Your task to perform on an android device: Go to network settings Image 0: 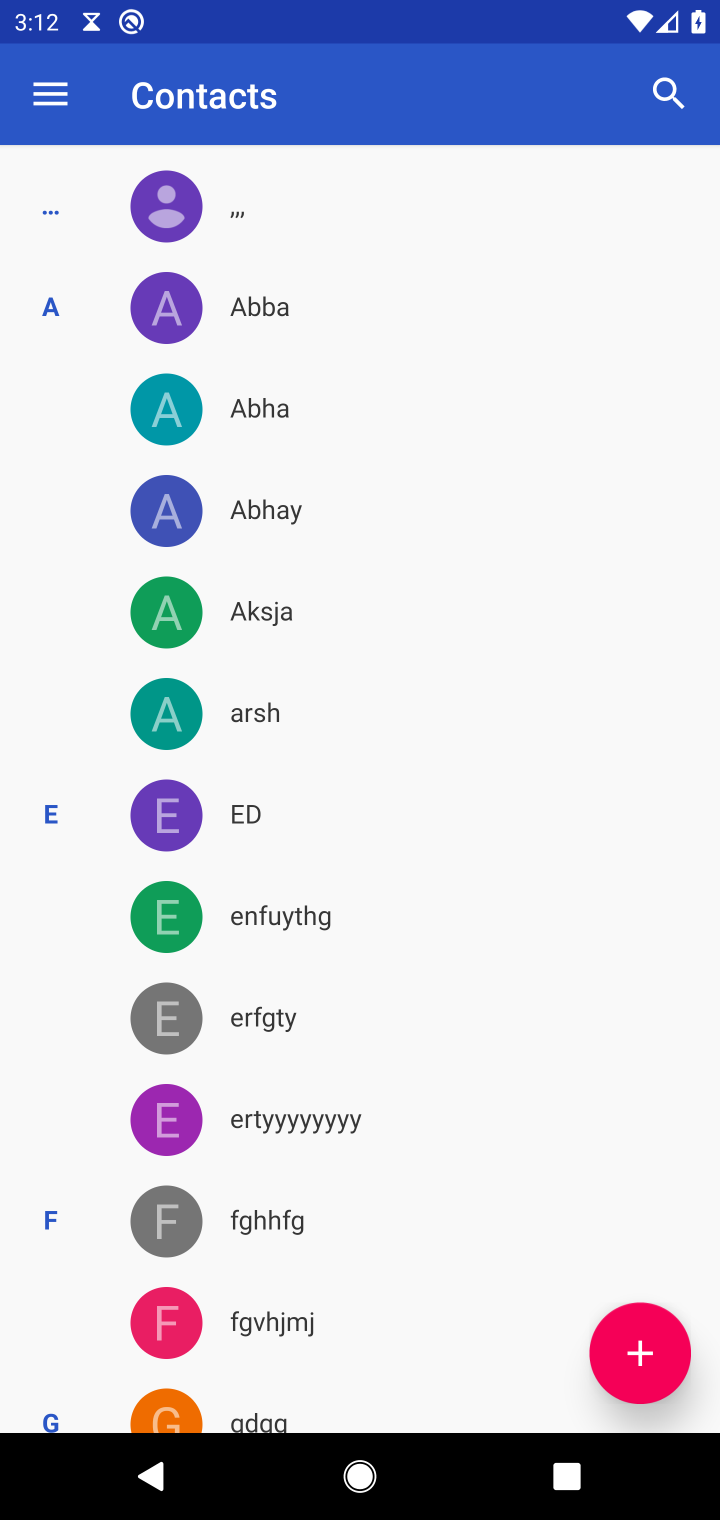
Step 0: press home button
Your task to perform on an android device: Go to network settings Image 1: 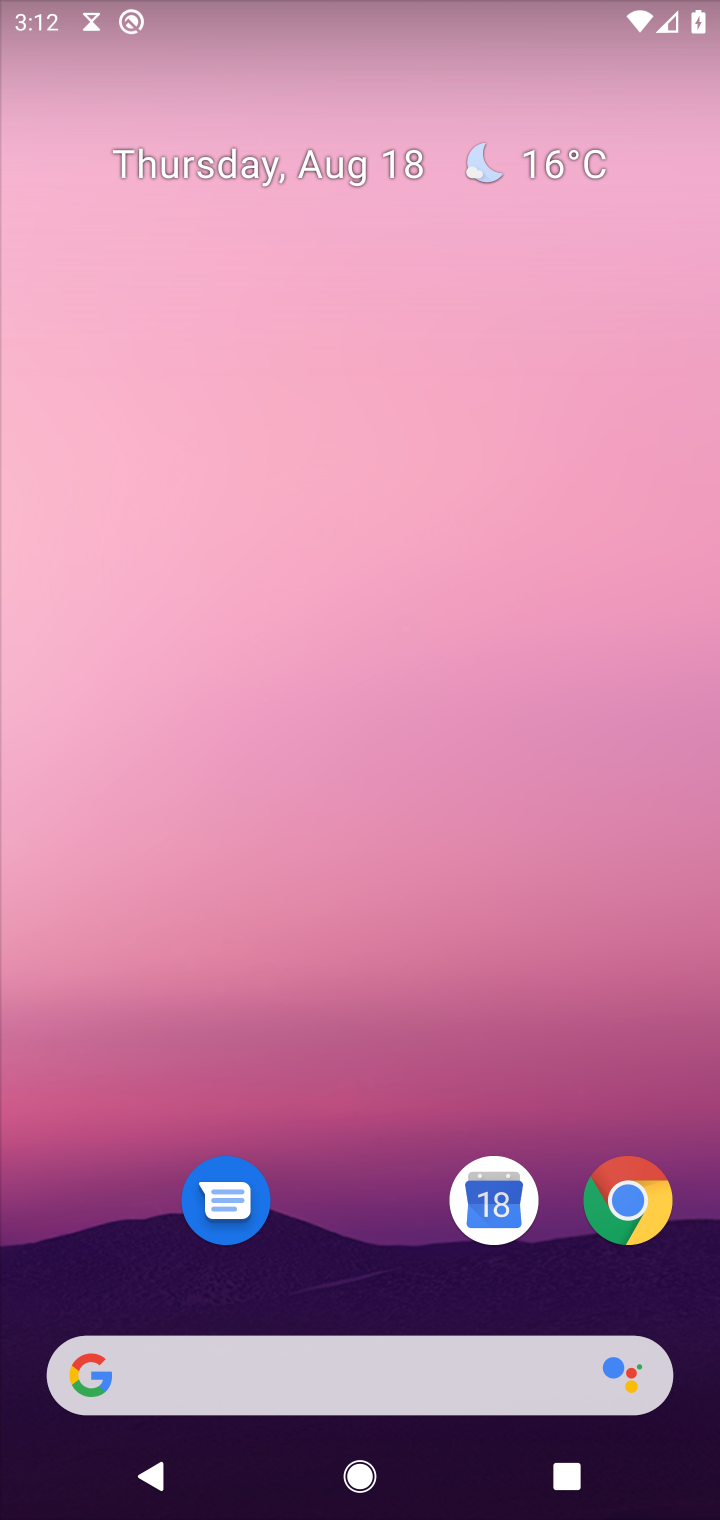
Step 1: drag from (339, 919) to (280, 218)
Your task to perform on an android device: Go to network settings Image 2: 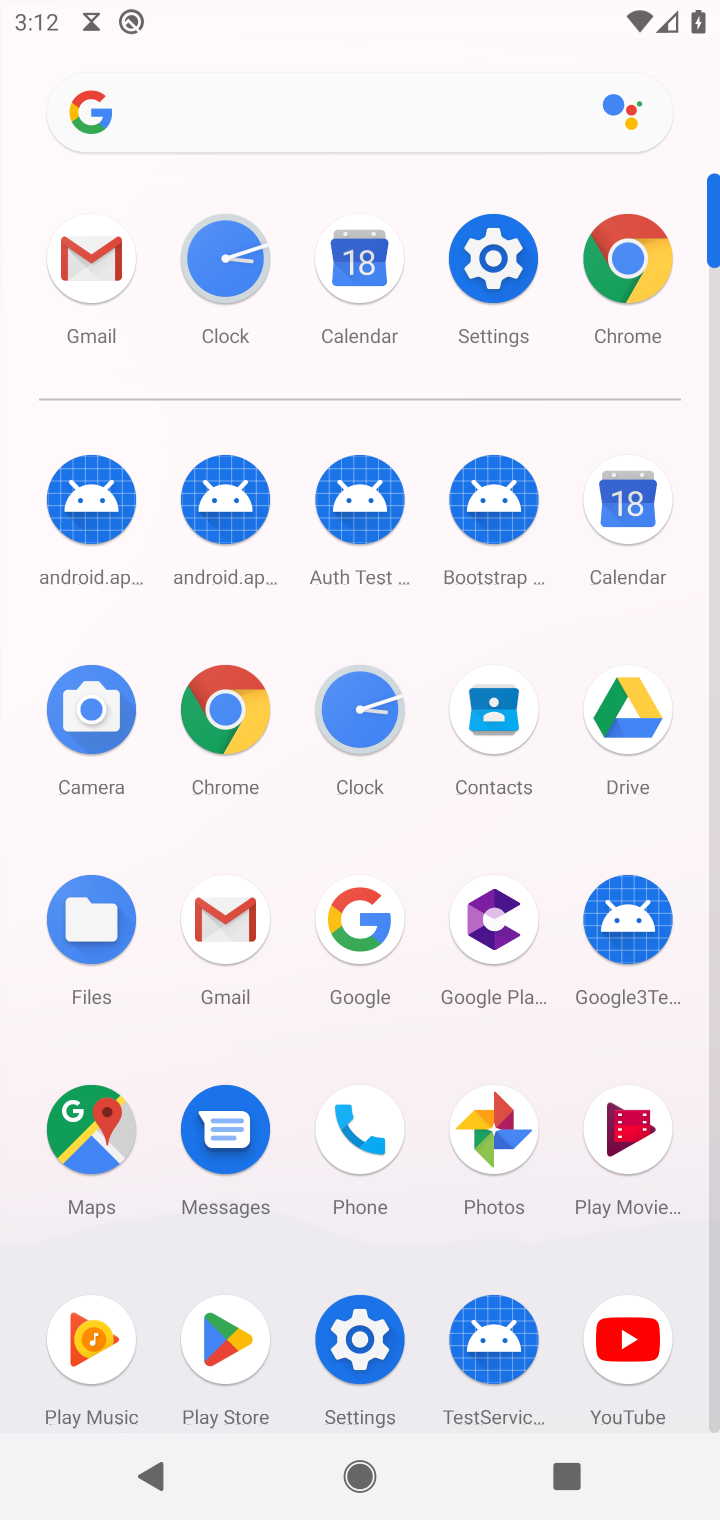
Step 2: click (353, 1324)
Your task to perform on an android device: Go to network settings Image 3: 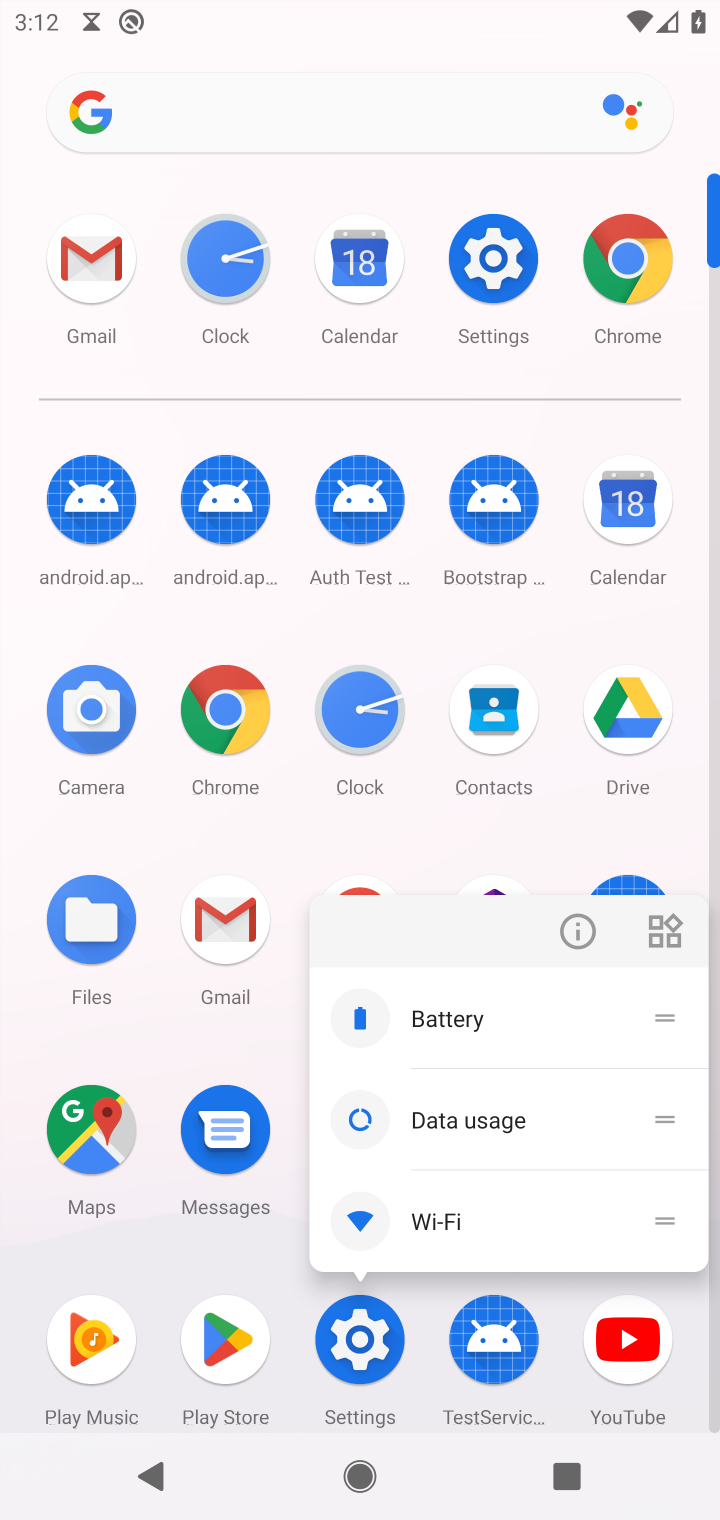
Step 3: click (506, 238)
Your task to perform on an android device: Go to network settings Image 4: 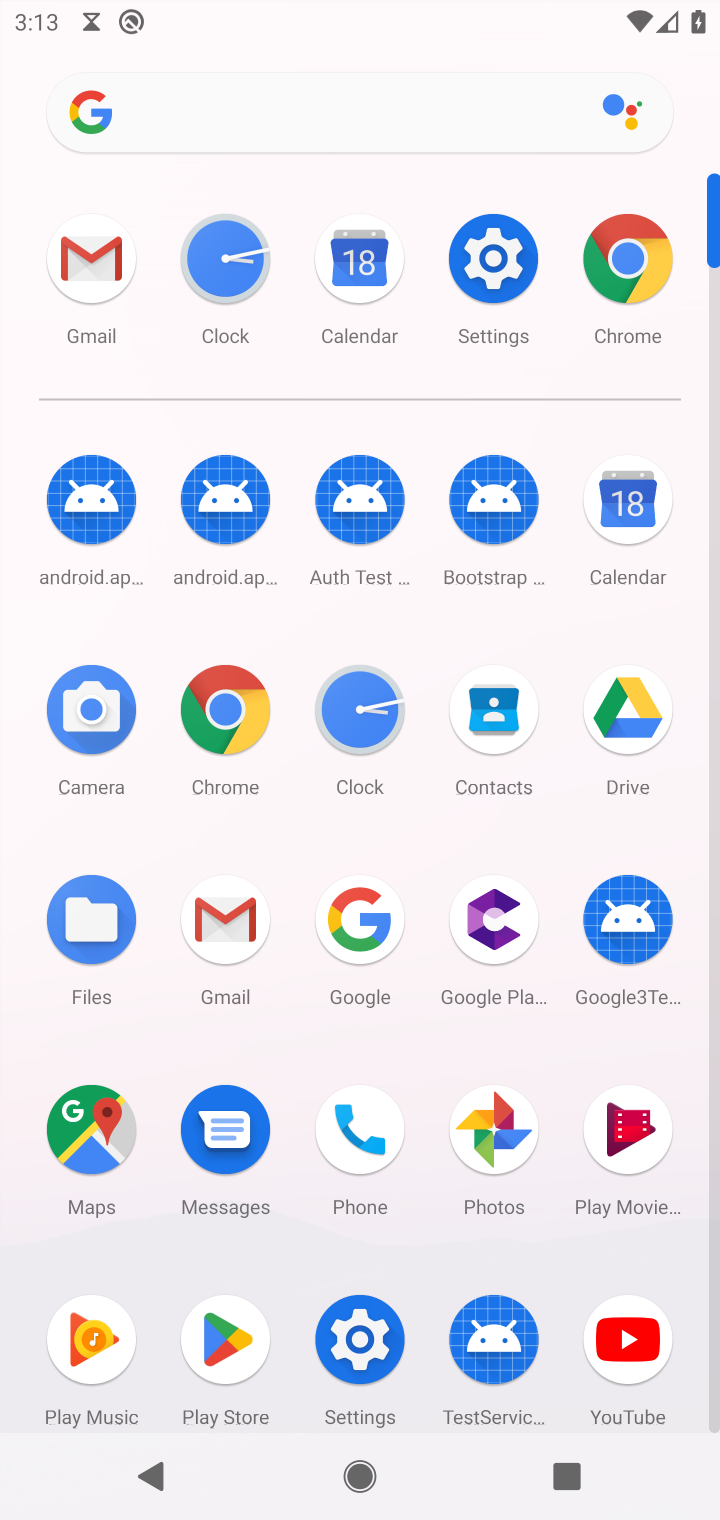
Step 4: click (489, 245)
Your task to perform on an android device: Go to network settings Image 5: 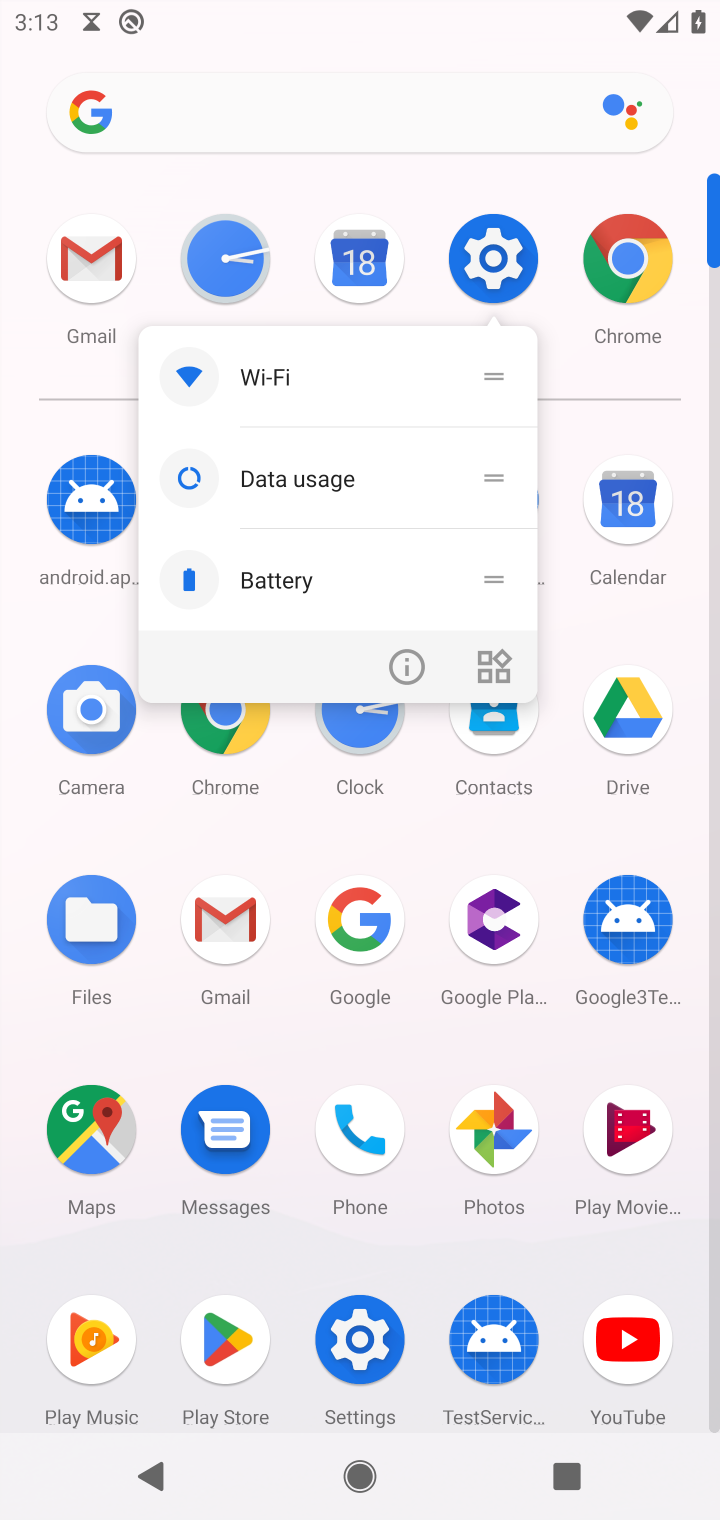
Step 5: click (492, 265)
Your task to perform on an android device: Go to network settings Image 6: 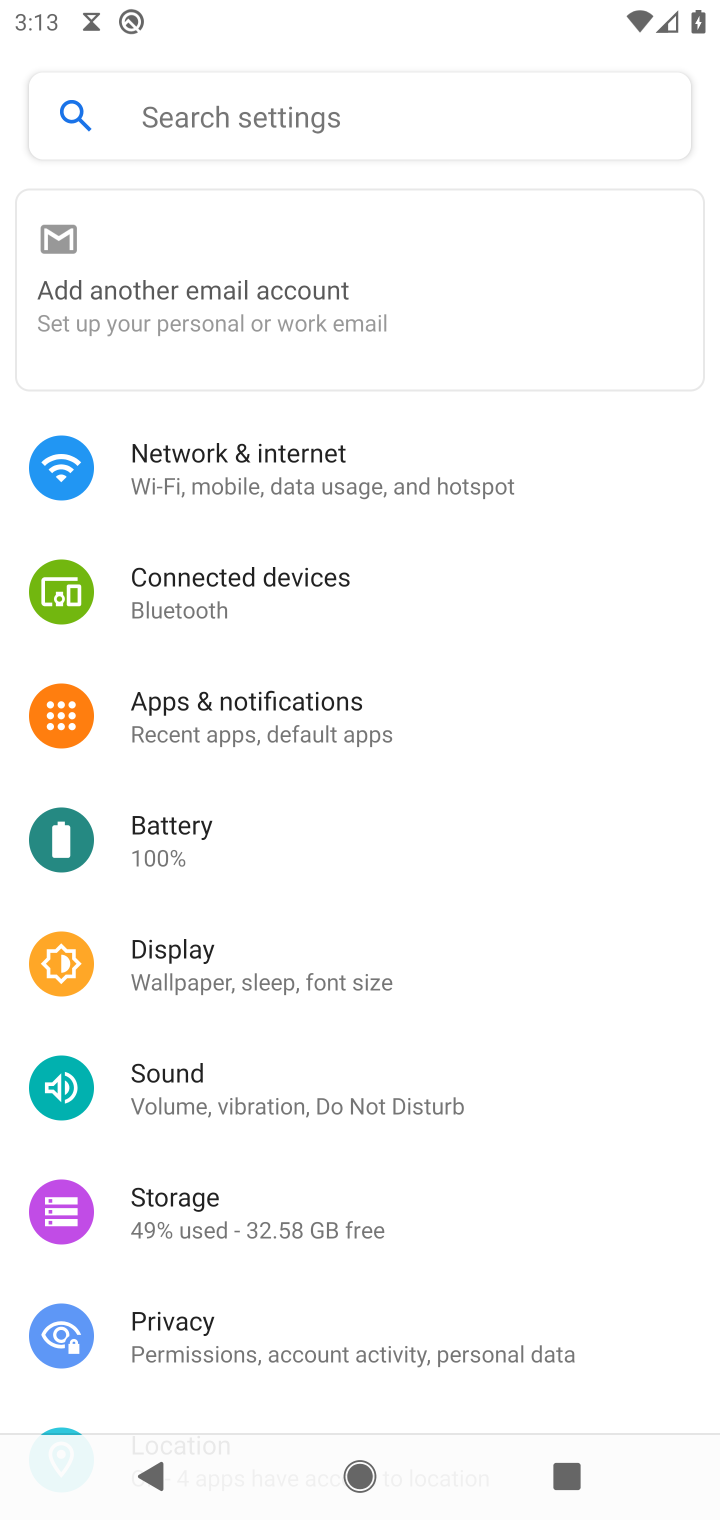
Step 6: click (230, 261)
Your task to perform on an android device: Go to network settings Image 7: 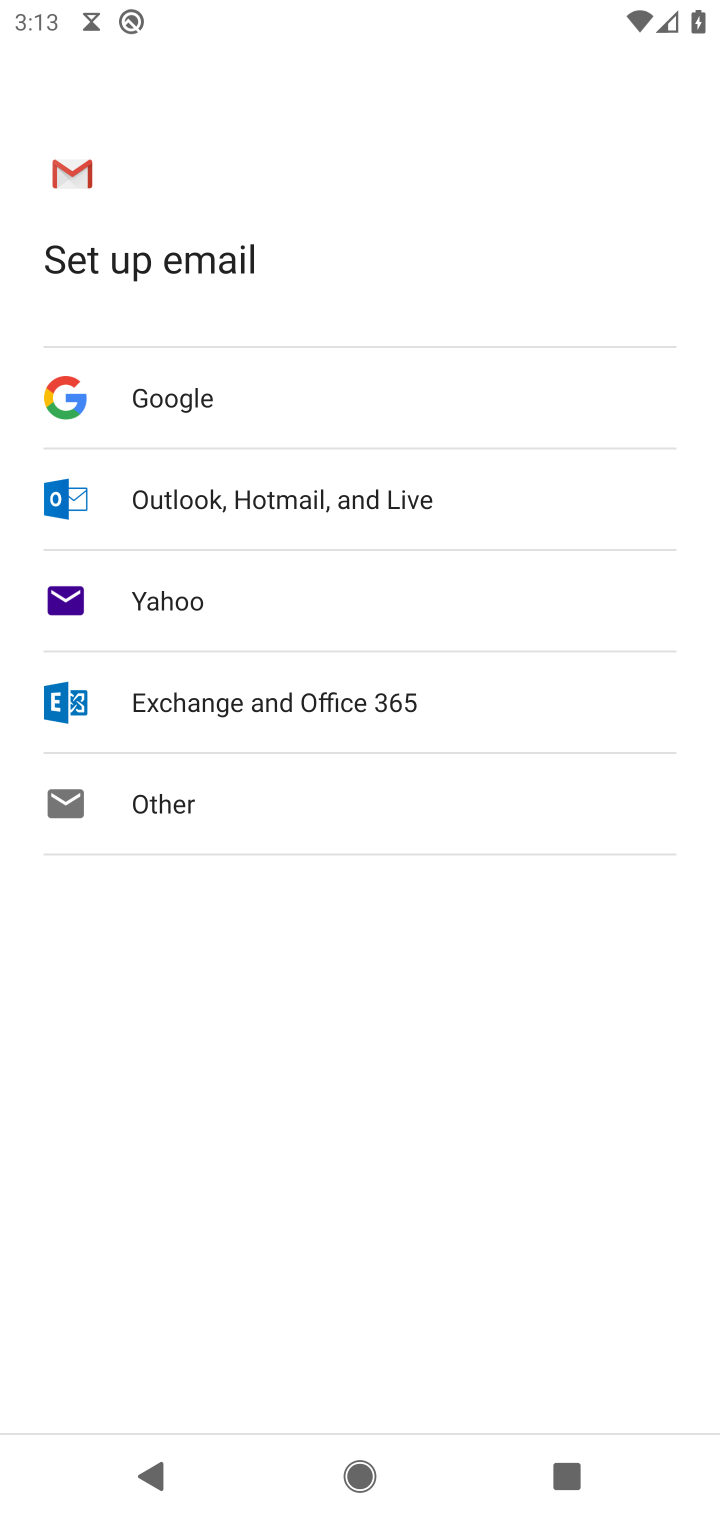
Step 7: click (177, 1461)
Your task to perform on an android device: Go to network settings Image 8: 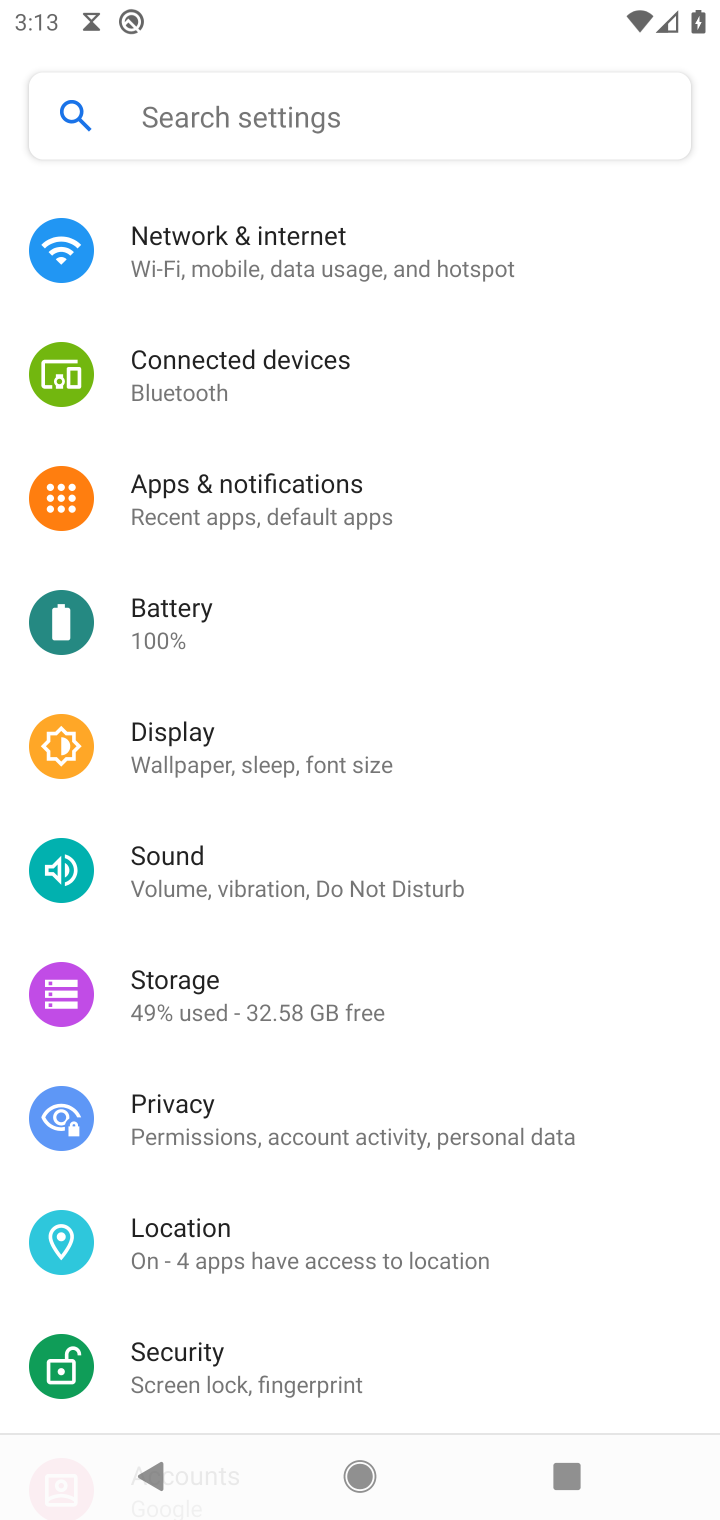
Step 8: click (229, 243)
Your task to perform on an android device: Go to network settings Image 9: 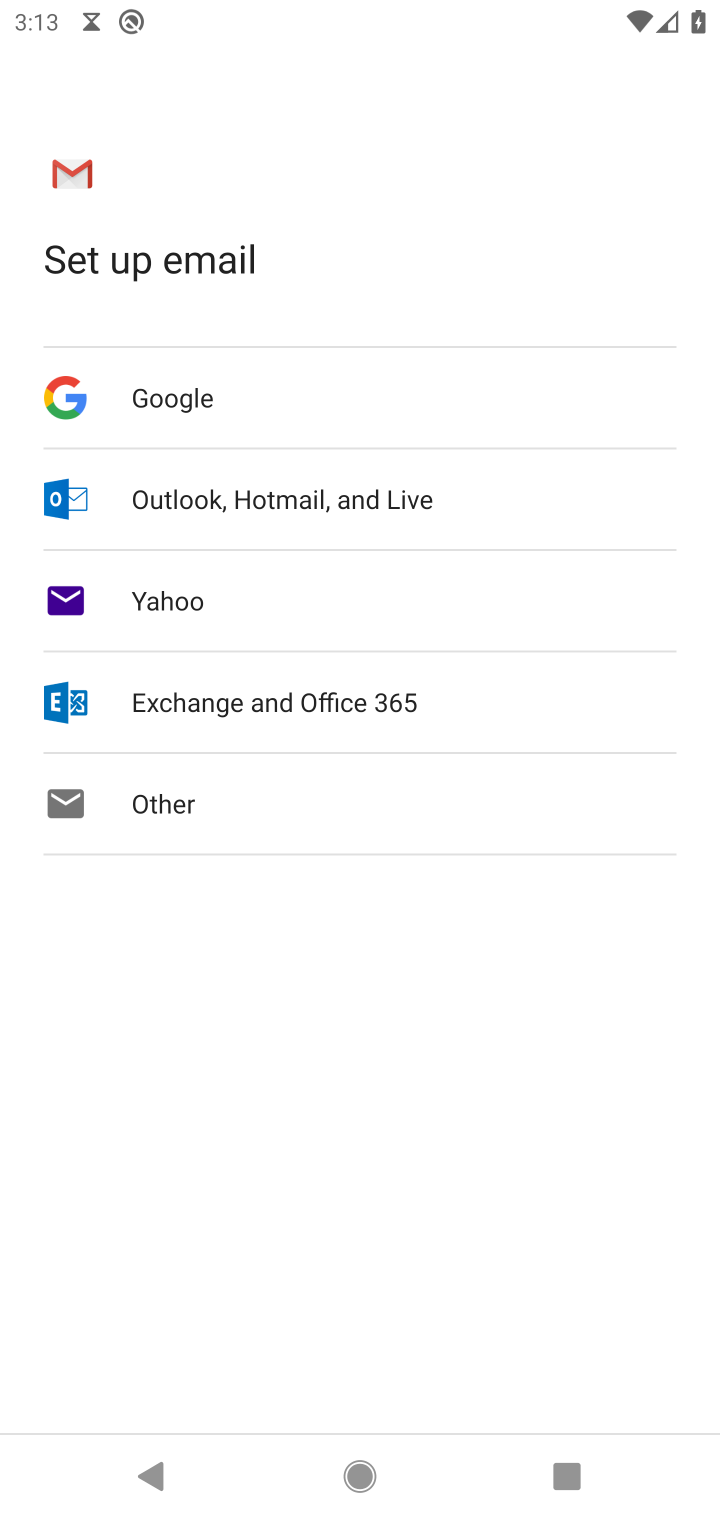
Step 9: task complete